Your task to perform on an android device: Find coffee shops on Maps Image 0: 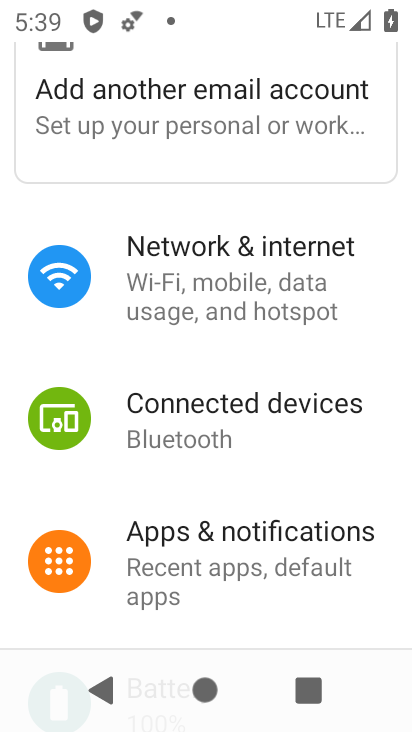
Step 0: press home button
Your task to perform on an android device: Find coffee shops on Maps Image 1: 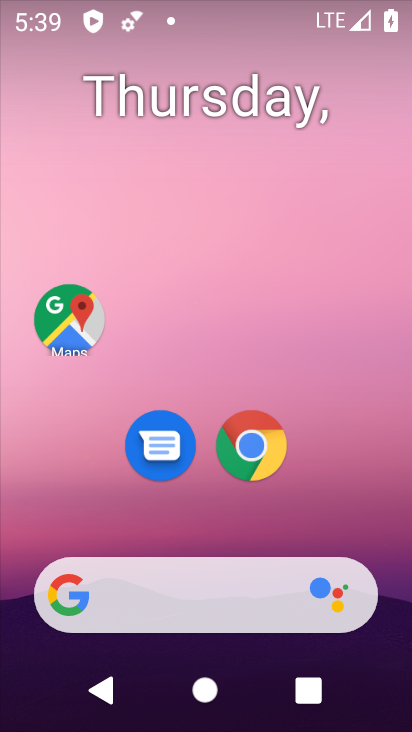
Step 1: click (63, 325)
Your task to perform on an android device: Find coffee shops on Maps Image 2: 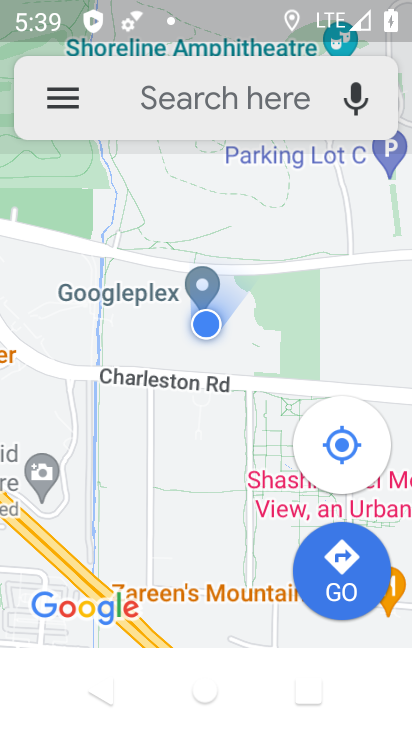
Step 2: click (207, 98)
Your task to perform on an android device: Find coffee shops on Maps Image 3: 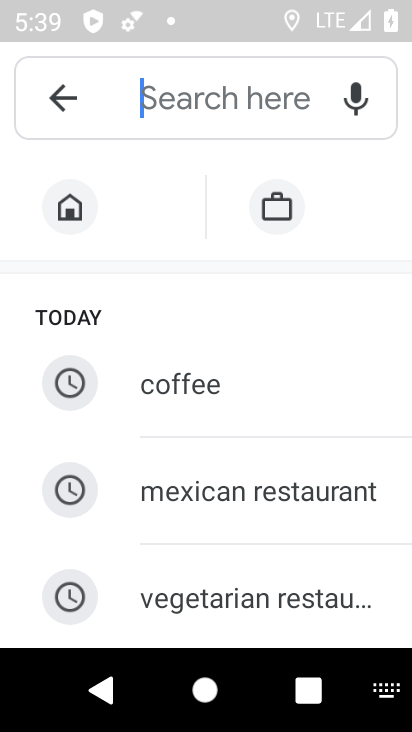
Step 3: type "coffee shops"
Your task to perform on an android device: Find coffee shops on Maps Image 4: 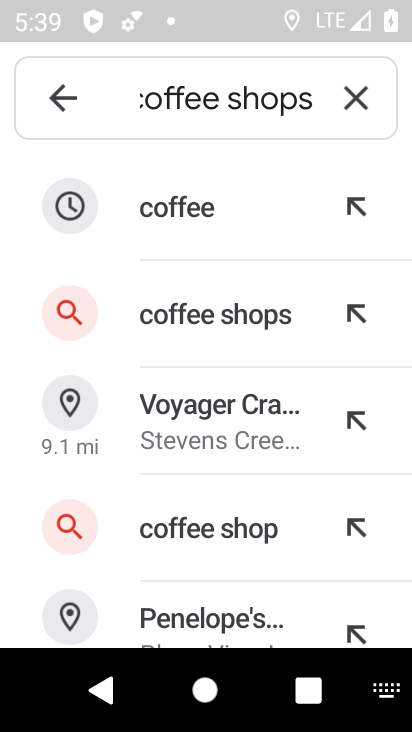
Step 4: click (182, 306)
Your task to perform on an android device: Find coffee shops on Maps Image 5: 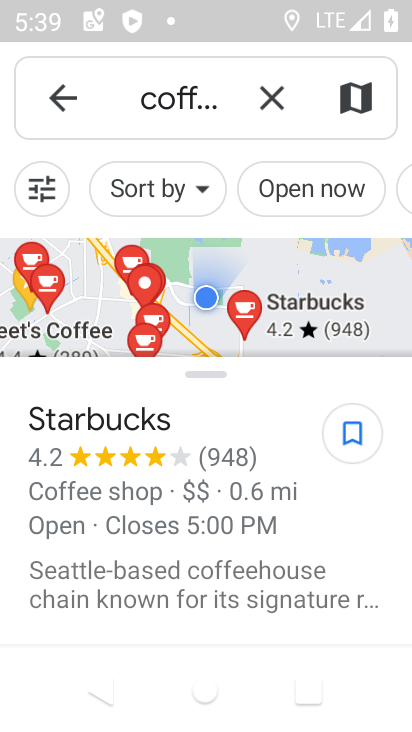
Step 5: task complete